Your task to perform on an android device: turn on the 24-hour format for clock Image 0: 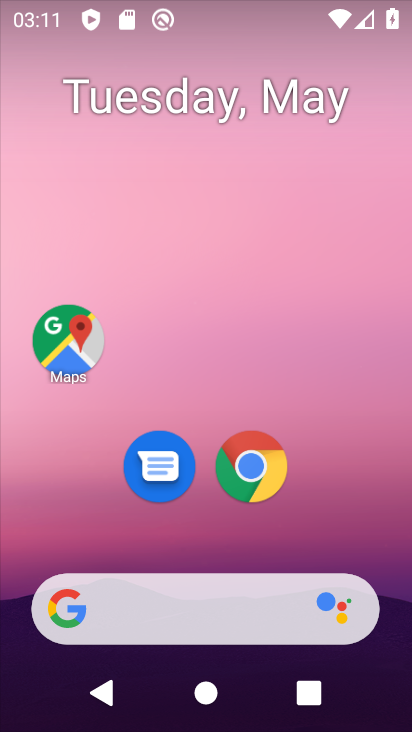
Step 0: drag from (309, 528) to (311, 224)
Your task to perform on an android device: turn on the 24-hour format for clock Image 1: 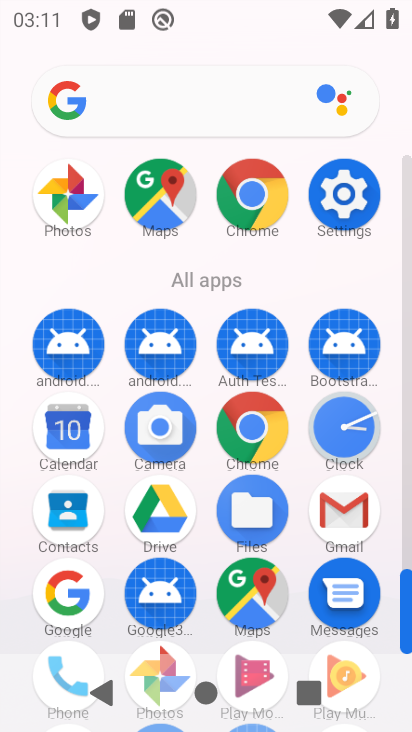
Step 1: click (334, 435)
Your task to perform on an android device: turn on the 24-hour format for clock Image 2: 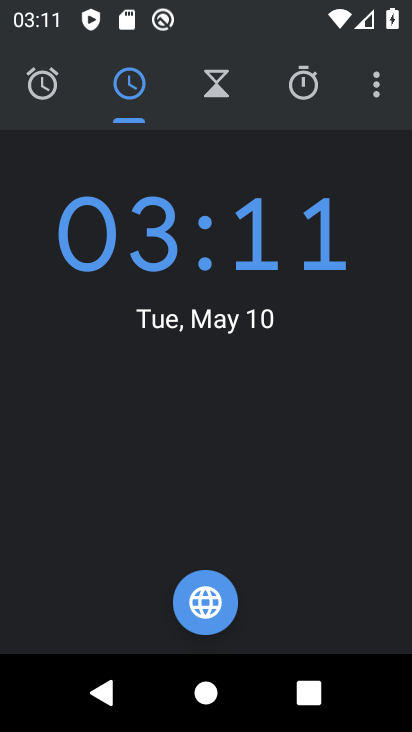
Step 2: click (362, 83)
Your task to perform on an android device: turn on the 24-hour format for clock Image 3: 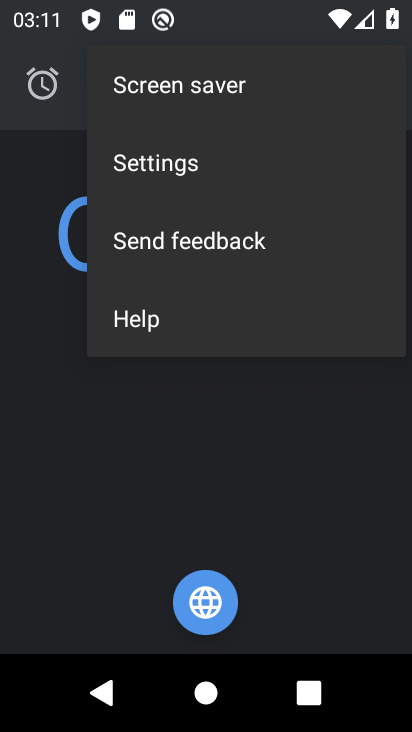
Step 3: click (197, 161)
Your task to perform on an android device: turn on the 24-hour format for clock Image 4: 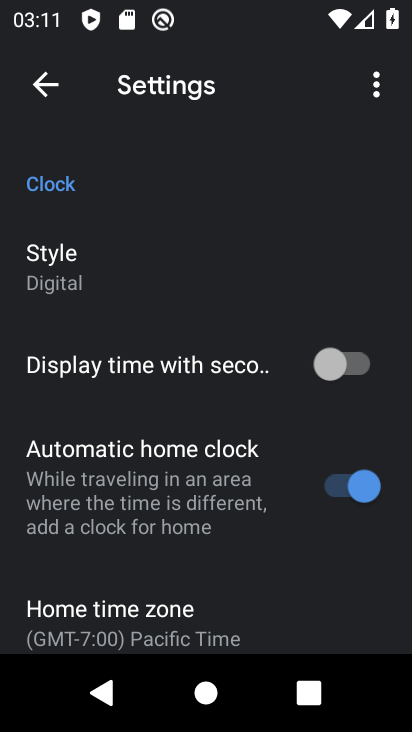
Step 4: drag from (185, 595) to (242, 183)
Your task to perform on an android device: turn on the 24-hour format for clock Image 5: 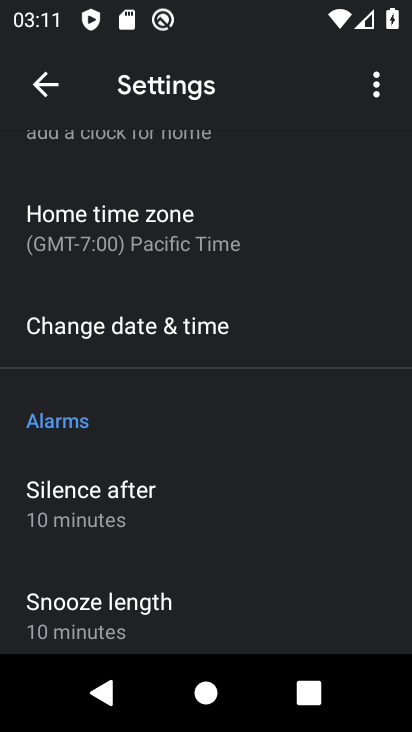
Step 5: click (185, 340)
Your task to perform on an android device: turn on the 24-hour format for clock Image 6: 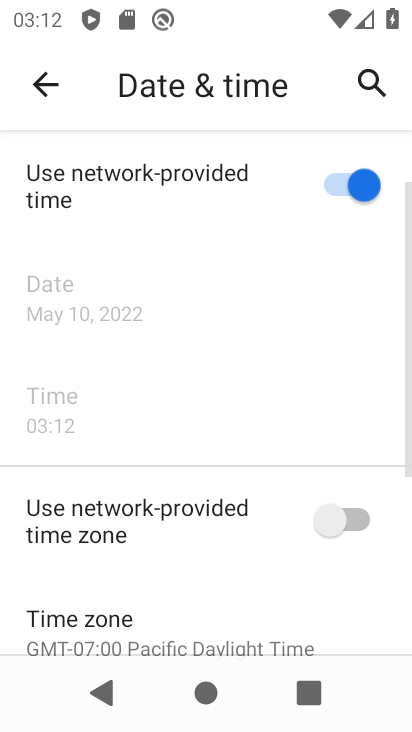
Step 6: task complete